Your task to perform on an android device: open app "Lyft - Rideshare, Bikes, Scooters & Transit" Image 0: 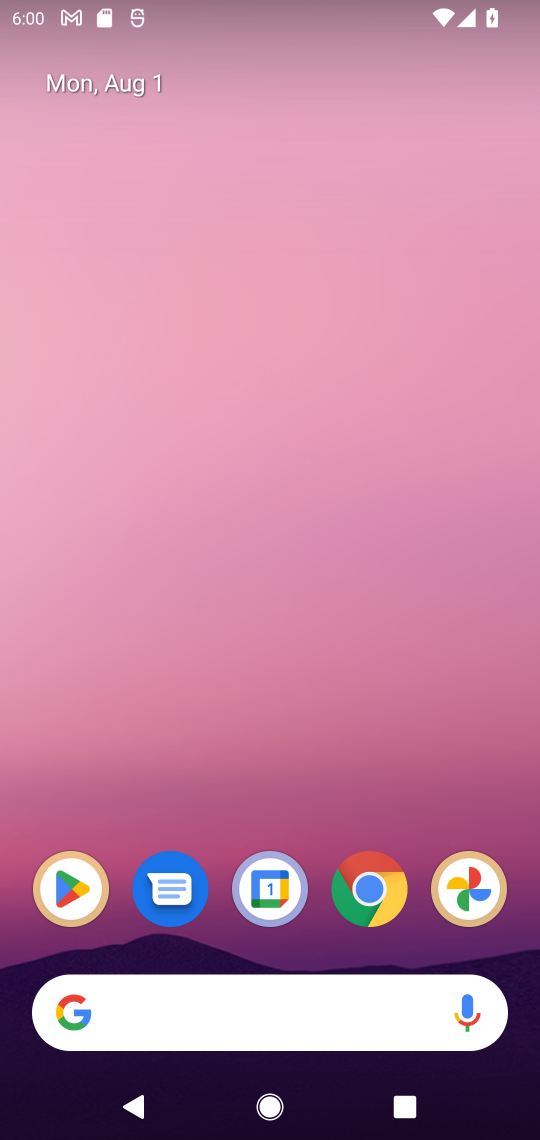
Step 0: drag from (154, 592) to (34, 210)
Your task to perform on an android device: open app "Lyft - Rideshare, Bikes, Scooters & Transit" Image 1: 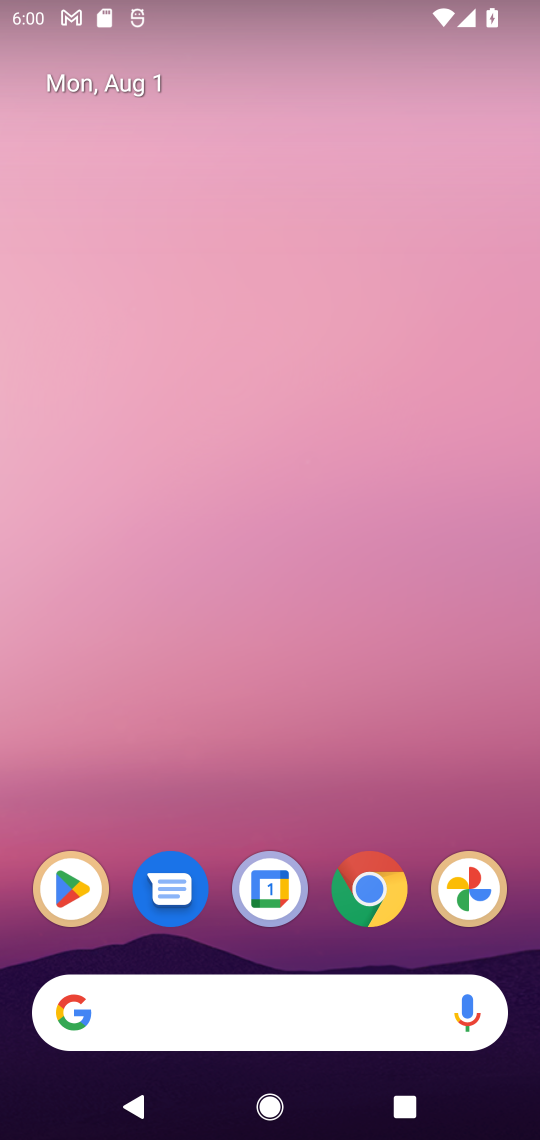
Step 1: click (321, 157)
Your task to perform on an android device: open app "Lyft - Rideshare, Bikes, Scooters & Transit" Image 2: 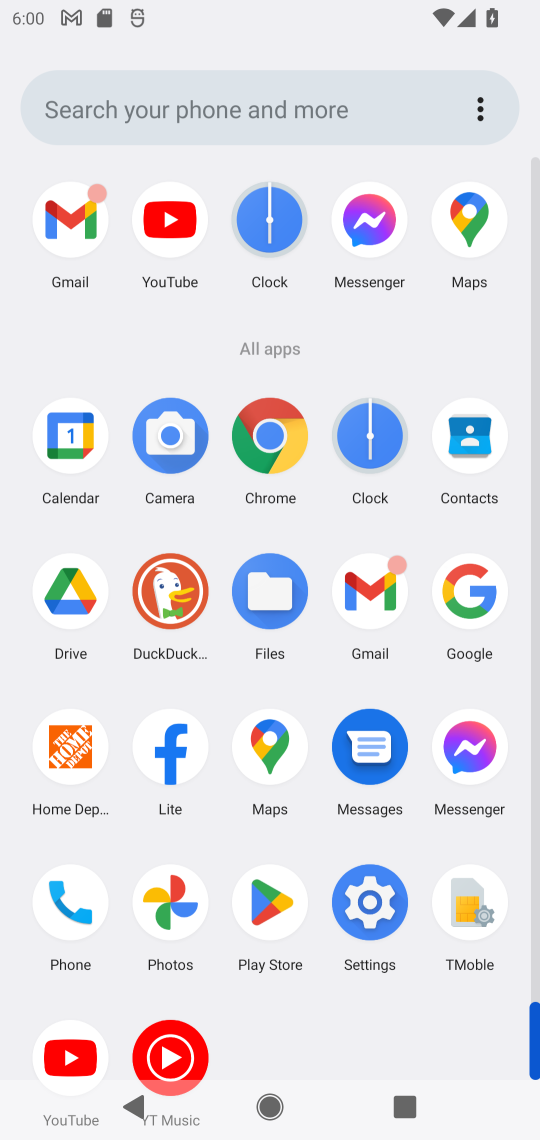
Step 2: drag from (203, 607) to (132, 26)
Your task to perform on an android device: open app "Lyft - Rideshare, Bikes, Scooters & Transit" Image 3: 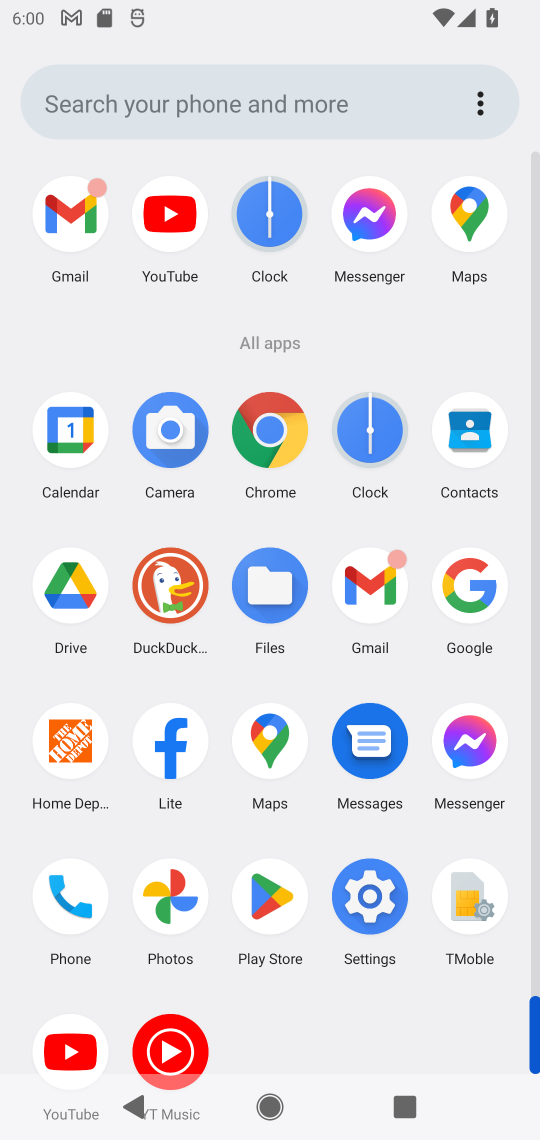
Step 3: click (285, 910)
Your task to perform on an android device: open app "Lyft - Rideshare, Bikes, Scooters & Transit" Image 4: 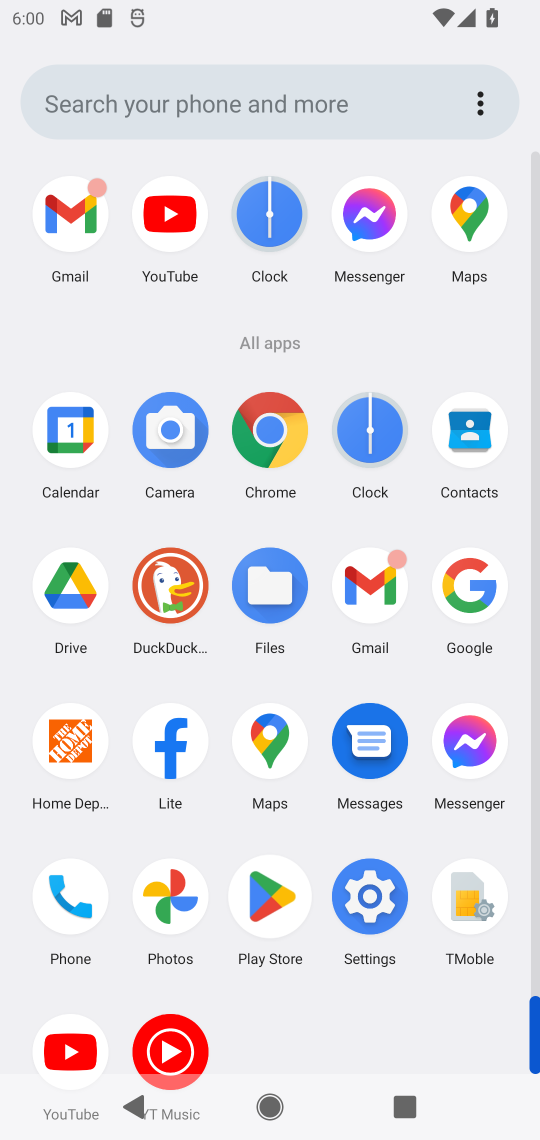
Step 4: click (285, 910)
Your task to perform on an android device: open app "Lyft - Rideshare, Bikes, Scooters & Transit" Image 5: 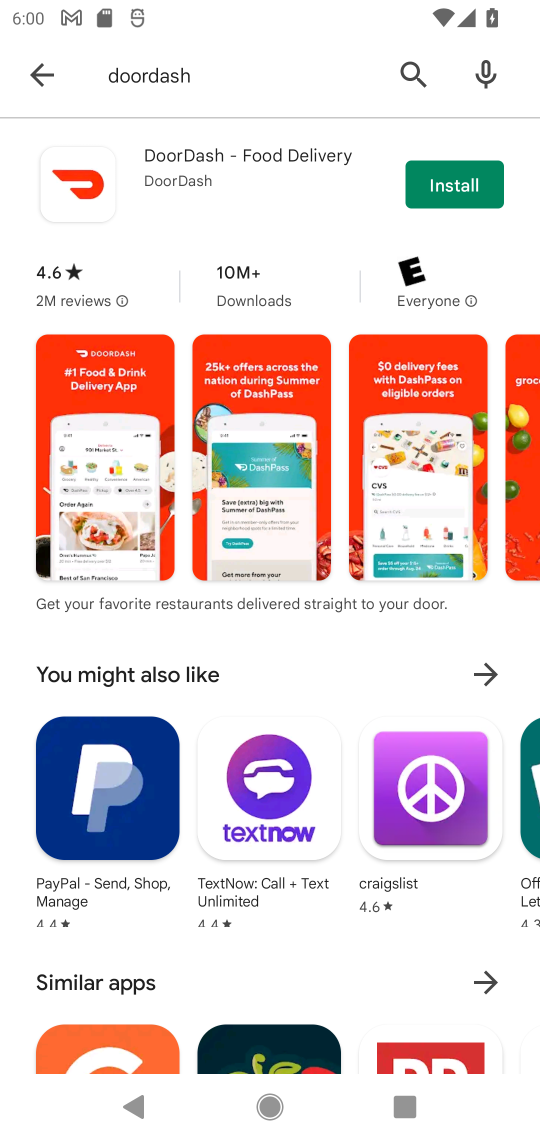
Step 5: click (29, 65)
Your task to perform on an android device: open app "Lyft - Rideshare, Bikes, Scooters & Transit" Image 6: 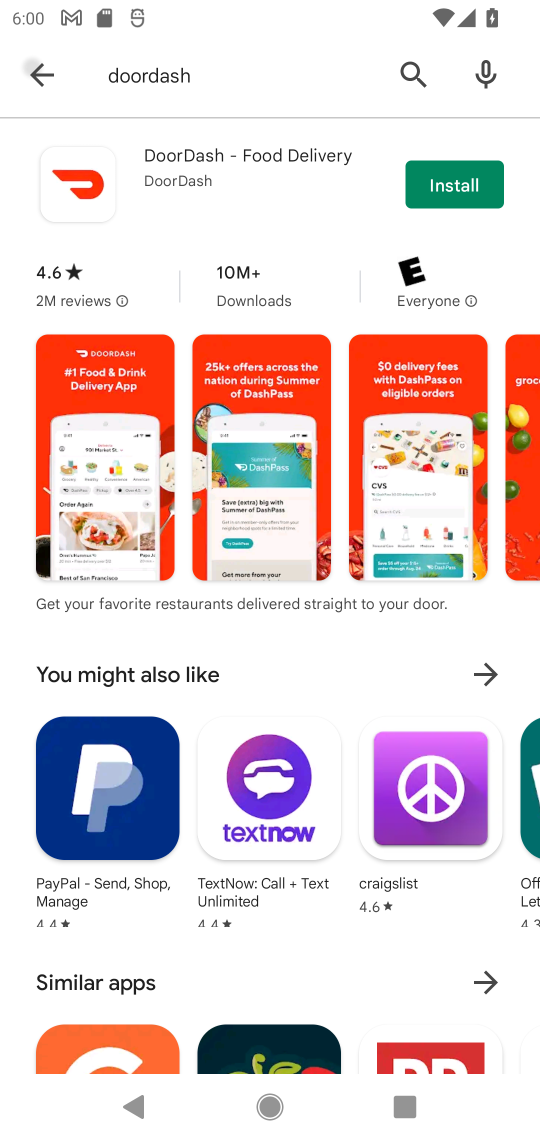
Step 6: click (42, 81)
Your task to perform on an android device: open app "Lyft - Rideshare, Bikes, Scooters & Transit" Image 7: 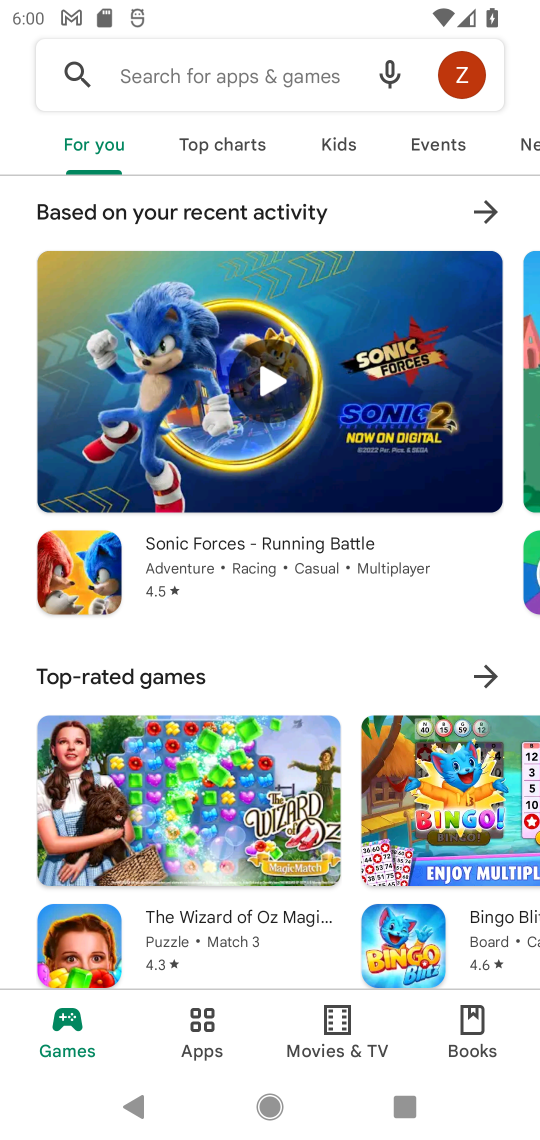
Step 7: click (141, 76)
Your task to perform on an android device: open app "Lyft - Rideshare, Bikes, Scooters & Transit" Image 8: 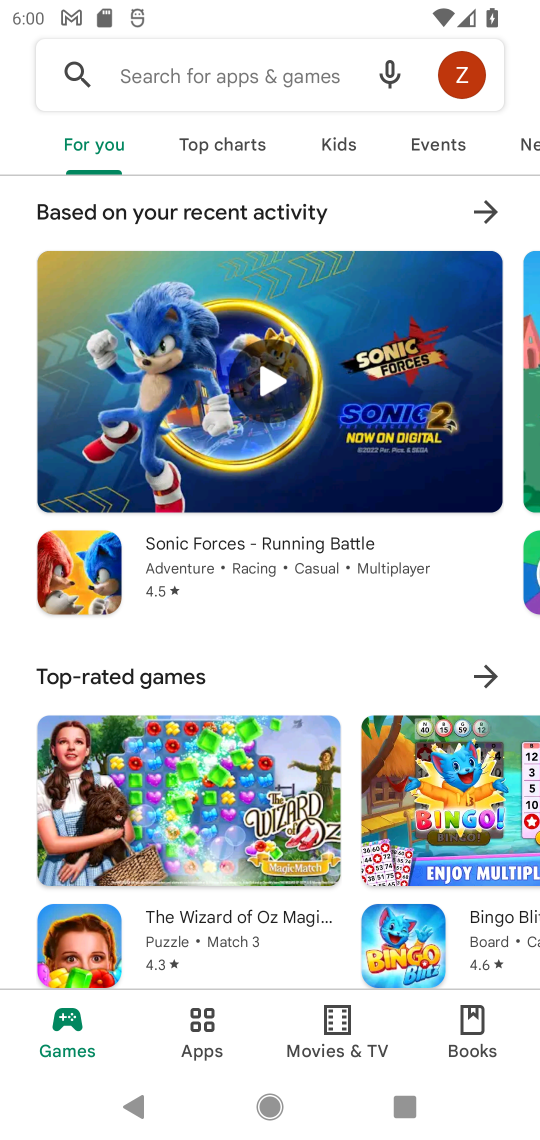
Step 8: click (141, 76)
Your task to perform on an android device: open app "Lyft - Rideshare, Bikes, Scooters & Transit" Image 9: 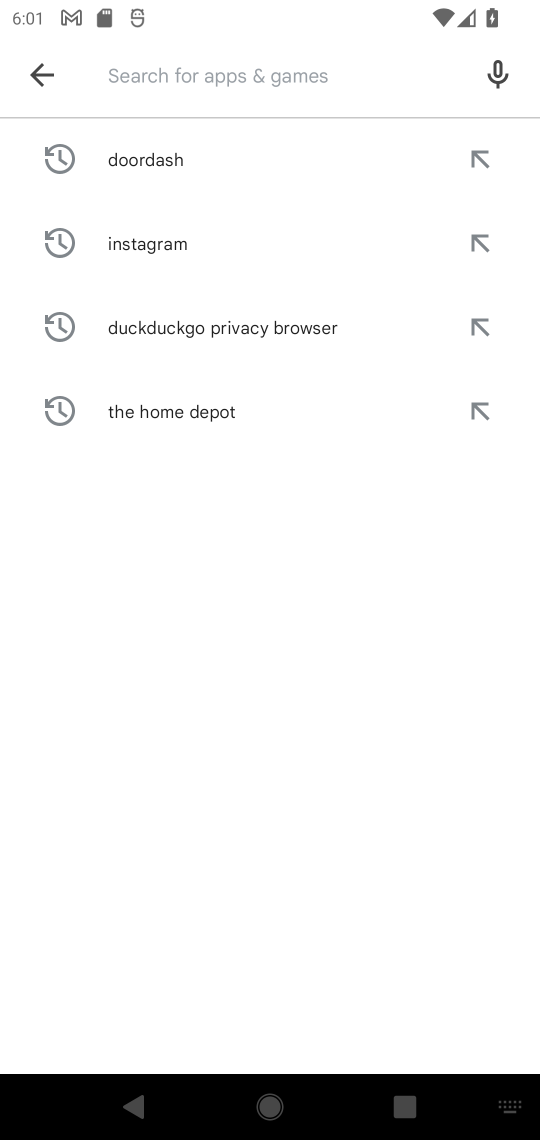
Step 9: type "Lyt"
Your task to perform on an android device: open app "Lyft - Rideshare, Bikes, Scooters & Transit" Image 10: 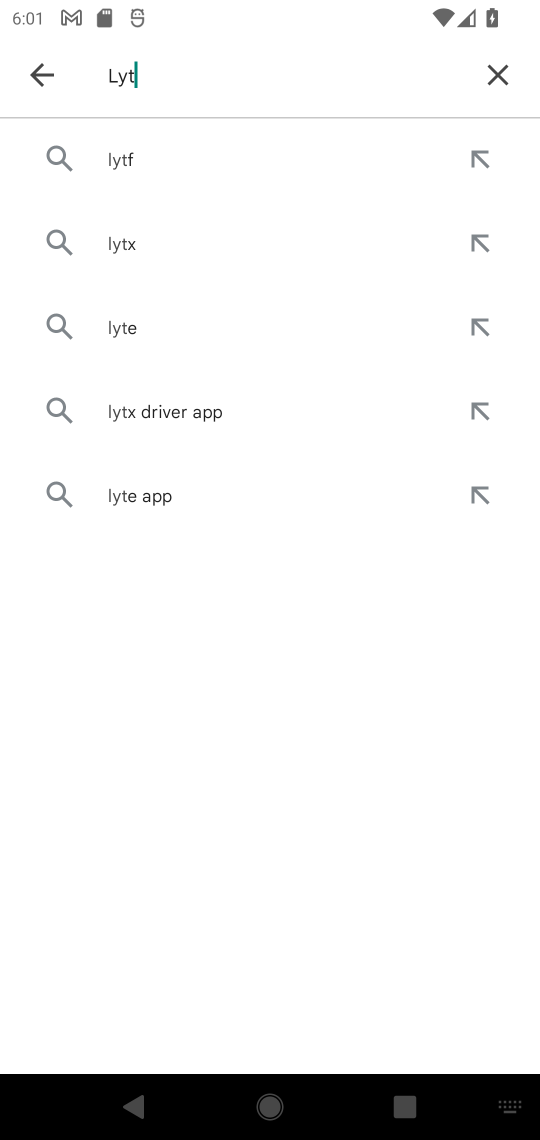
Step 10: click (472, 163)
Your task to perform on an android device: open app "Lyft - Rideshare, Bikes, Scooters & Transit" Image 11: 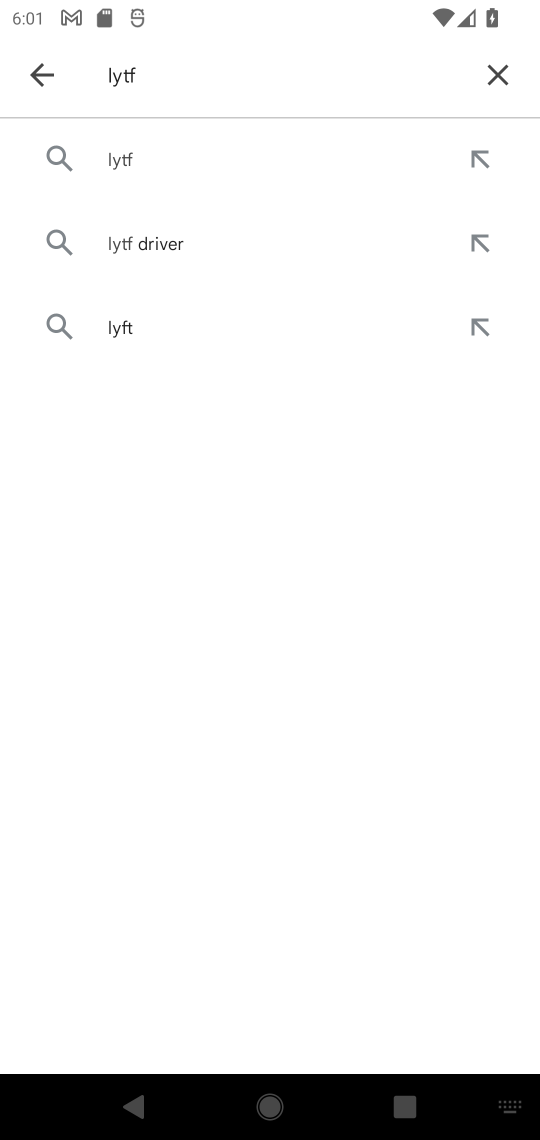
Step 11: click (132, 156)
Your task to perform on an android device: open app "Lyft - Rideshare, Bikes, Scooters & Transit" Image 12: 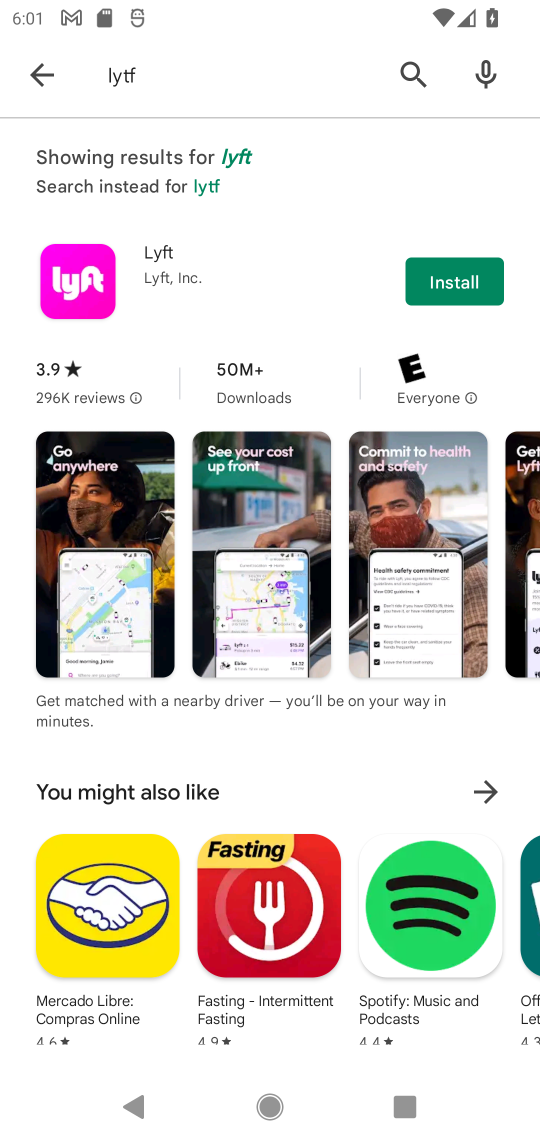
Step 12: click (451, 275)
Your task to perform on an android device: open app "Lyft - Rideshare, Bikes, Scooters & Transit" Image 13: 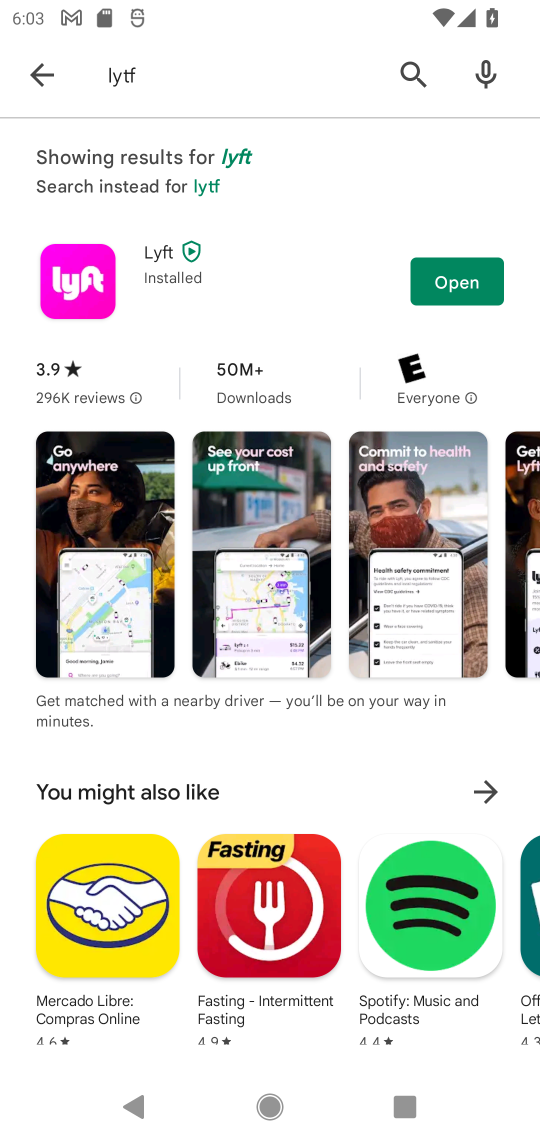
Step 13: click (430, 273)
Your task to perform on an android device: open app "Lyft - Rideshare, Bikes, Scooters & Transit" Image 14: 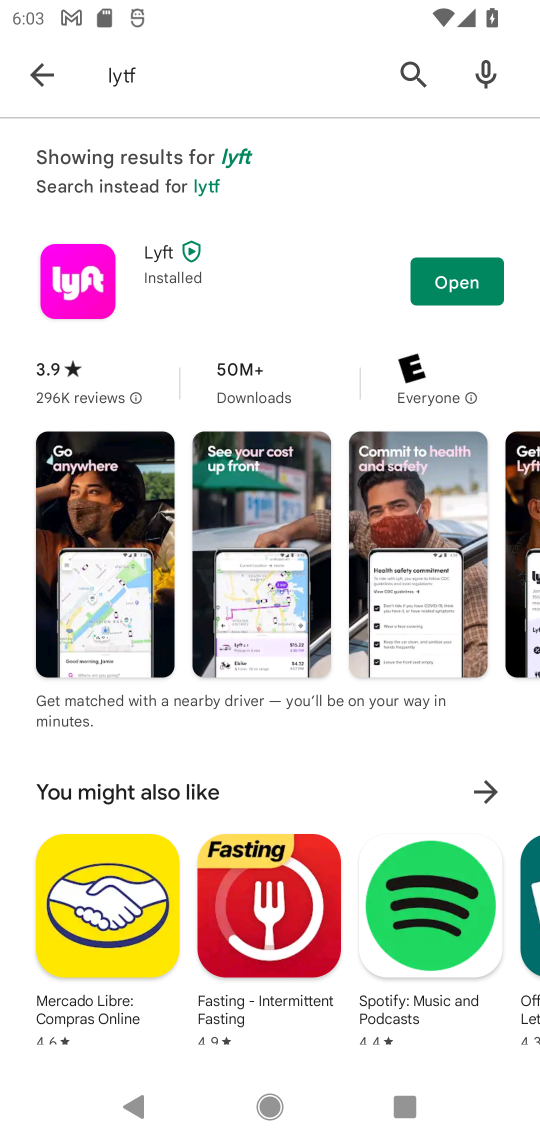
Step 14: click (434, 276)
Your task to perform on an android device: open app "Lyft - Rideshare, Bikes, Scooters & Transit" Image 15: 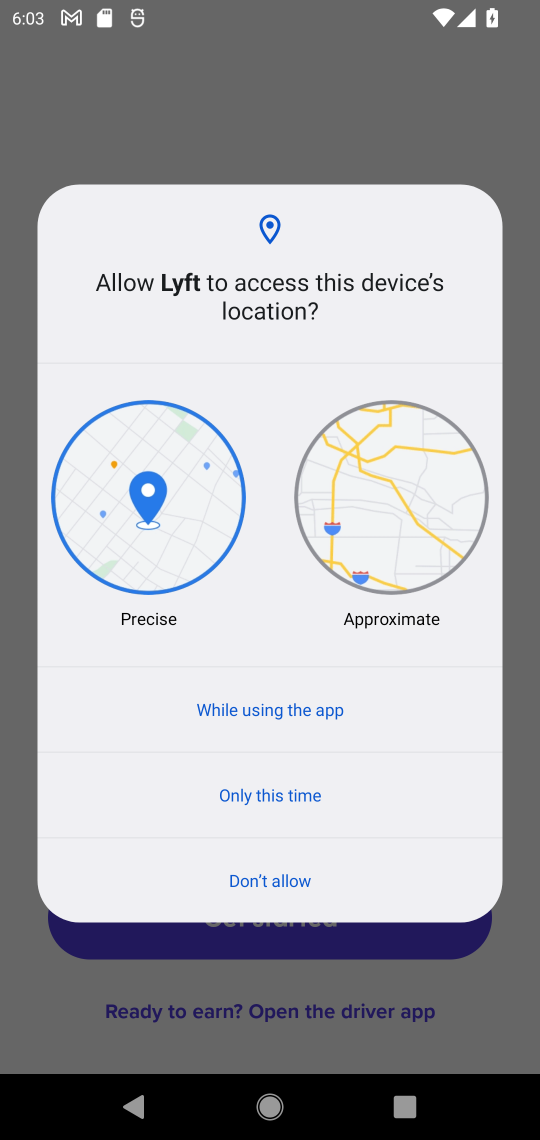
Step 15: task complete